Your task to perform on an android device: check the backup settings in the google photos Image 0: 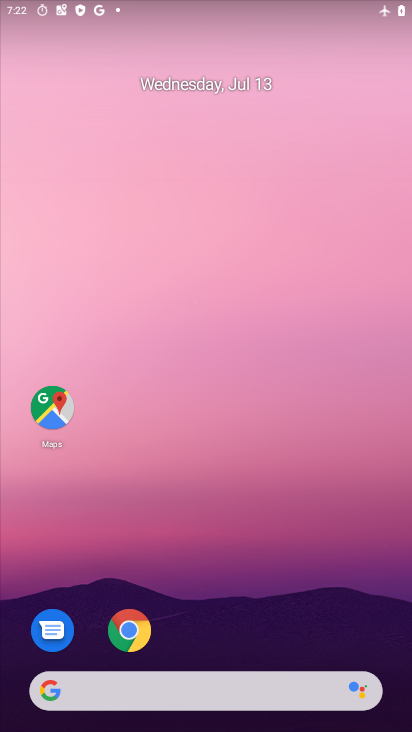
Step 0: drag from (240, 610) to (17, 11)
Your task to perform on an android device: check the backup settings in the google photos Image 1: 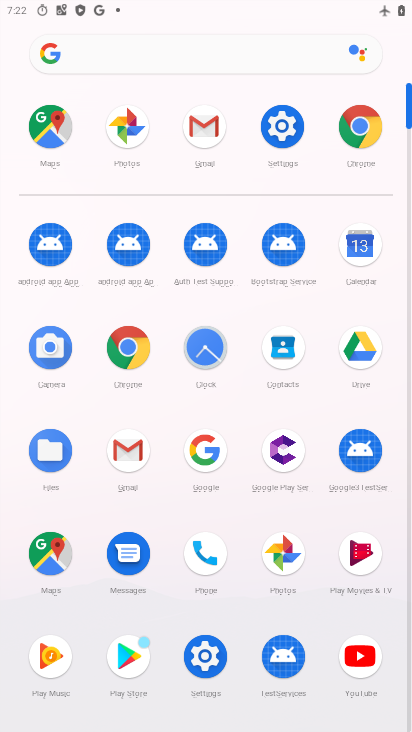
Step 1: click (271, 550)
Your task to perform on an android device: check the backup settings in the google photos Image 2: 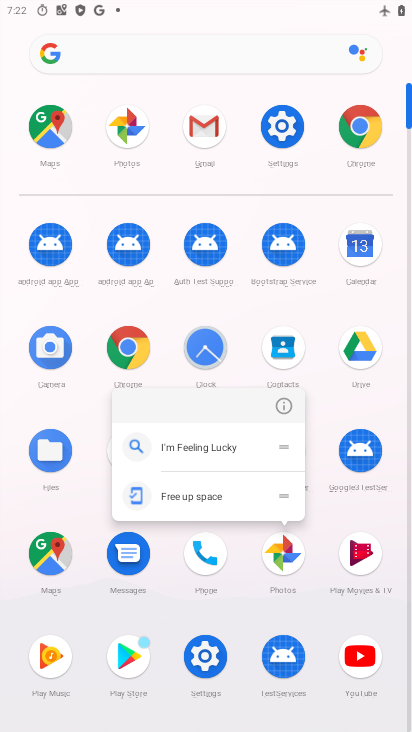
Step 2: click (276, 536)
Your task to perform on an android device: check the backup settings in the google photos Image 3: 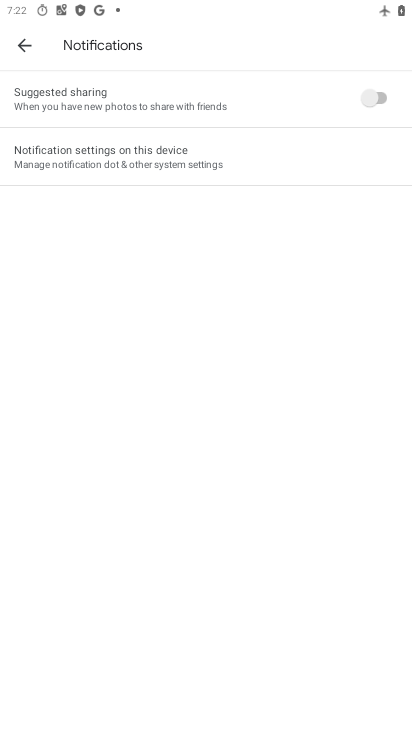
Step 3: press back button
Your task to perform on an android device: check the backup settings in the google photos Image 4: 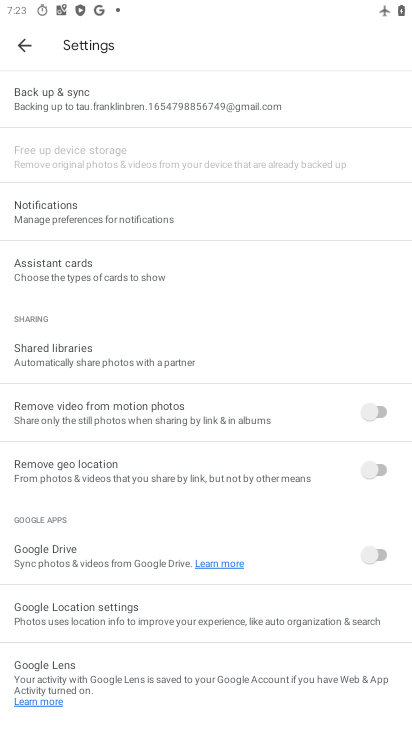
Step 4: click (215, 95)
Your task to perform on an android device: check the backup settings in the google photos Image 5: 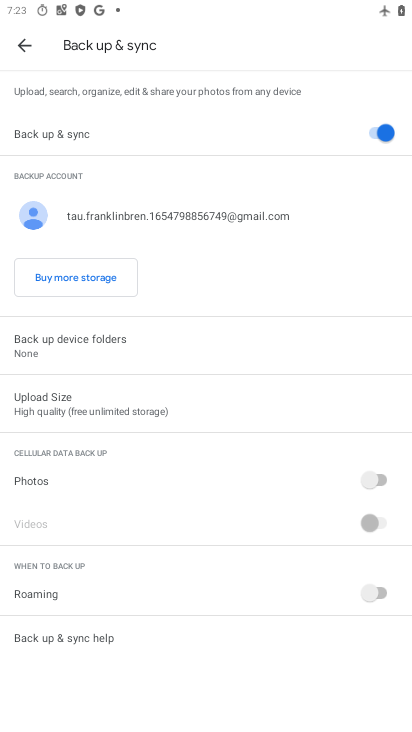
Step 5: task complete